Your task to perform on an android device: toggle sleep mode Image 0: 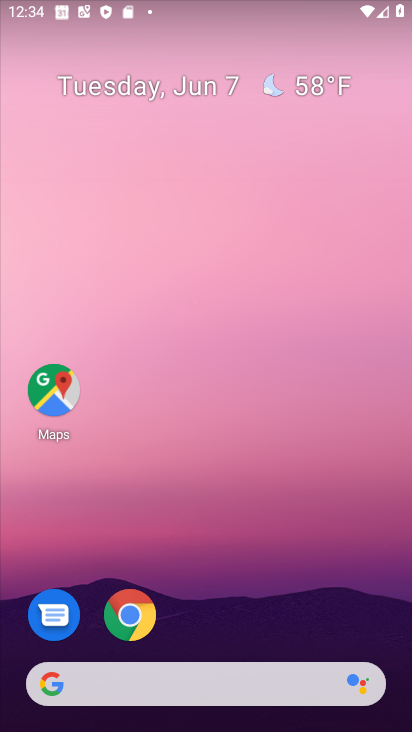
Step 0: drag from (274, 562) to (197, 5)
Your task to perform on an android device: toggle sleep mode Image 1: 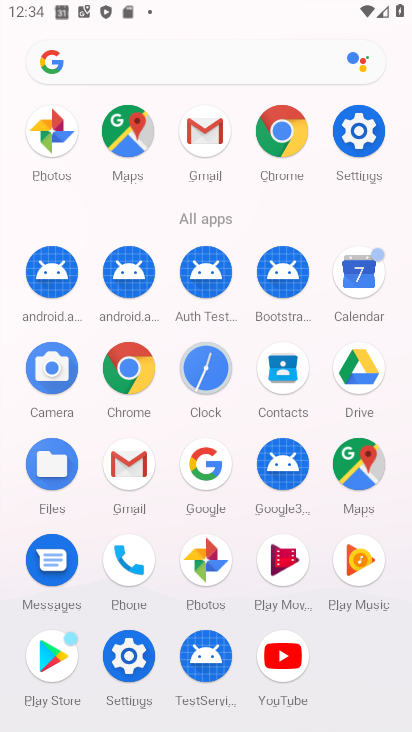
Step 1: click (359, 130)
Your task to perform on an android device: toggle sleep mode Image 2: 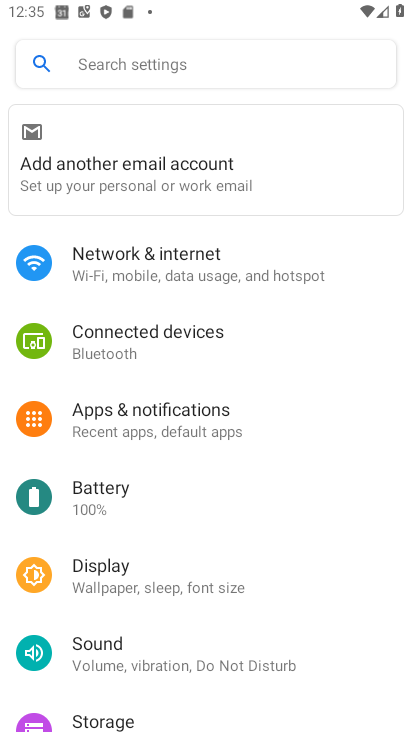
Step 2: drag from (184, 474) to (174, 352)
Your task to perform on an android device: toggle sleep mode Image 3: 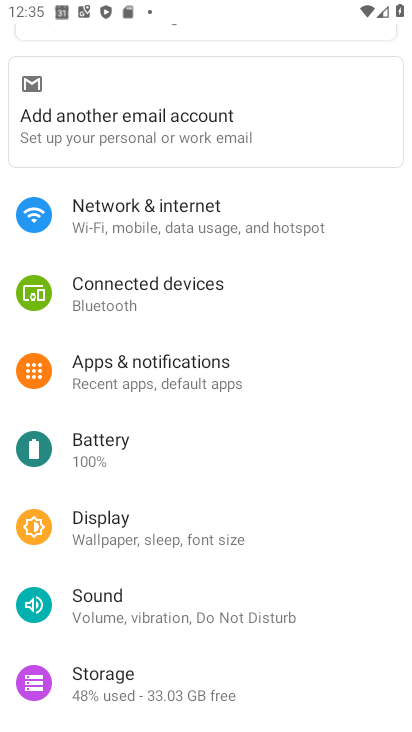
Step 3: click (173, 530)
Your task to perform on an android device: toggle sleep mode Image 4: 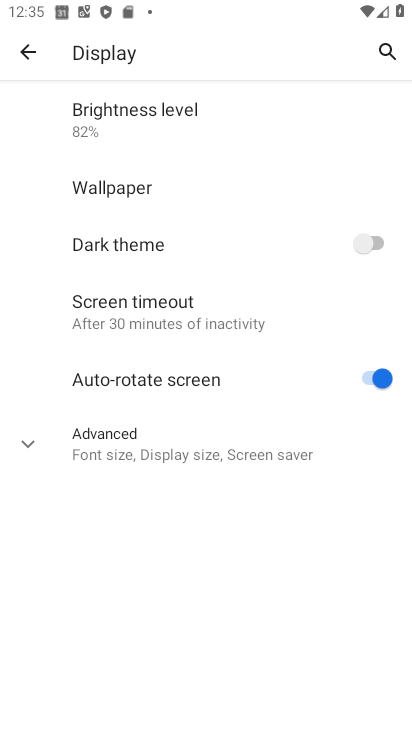
Step 4: click (256, 455)
Your task to perform on an android device: toggle sleep mode Image 5: 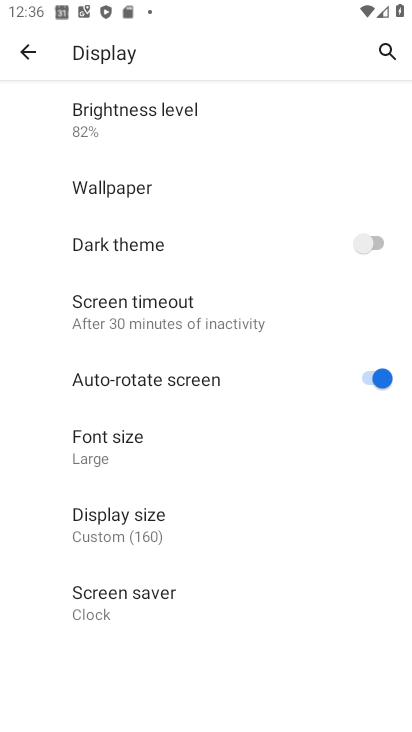
Step 5: task complete